Your task to perform on an android device: Open eBay Image 0: 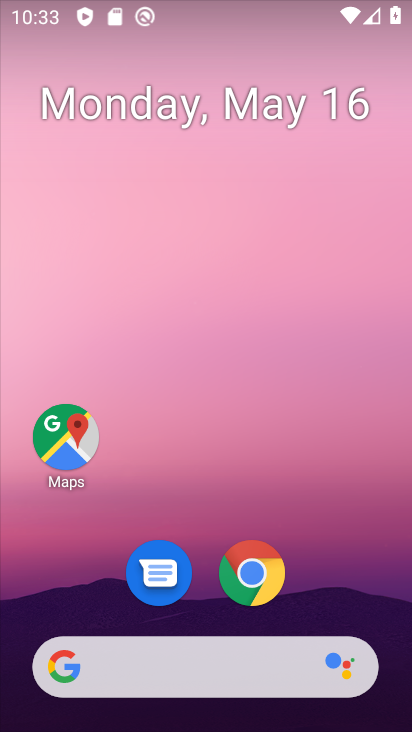
Step 0: drag from (323, 668) to (359, 45)
Your task to perform on an android device: Open eBay Image 1: 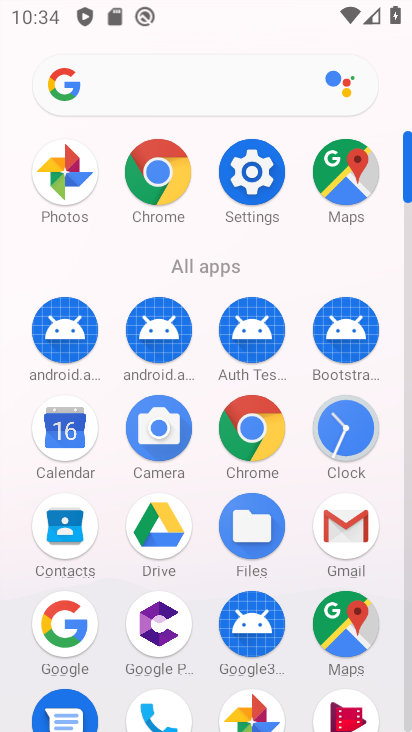
Step 1: click (223, 391)
Your task to perform on an android device: Open eBay Image 2: 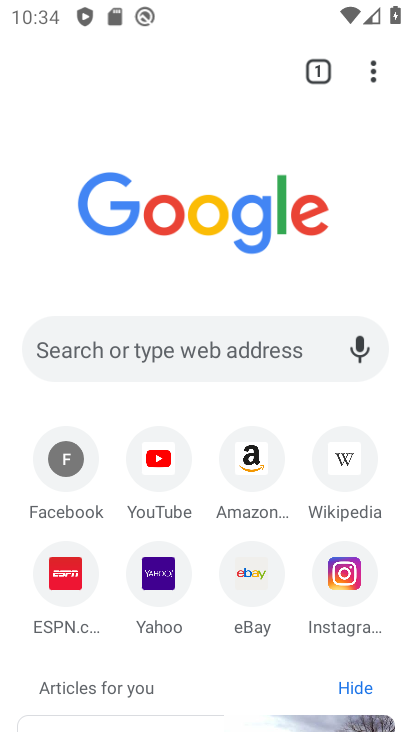
Step 2: task complete